Your task to perform on an android device: turn on wifi Image 0: 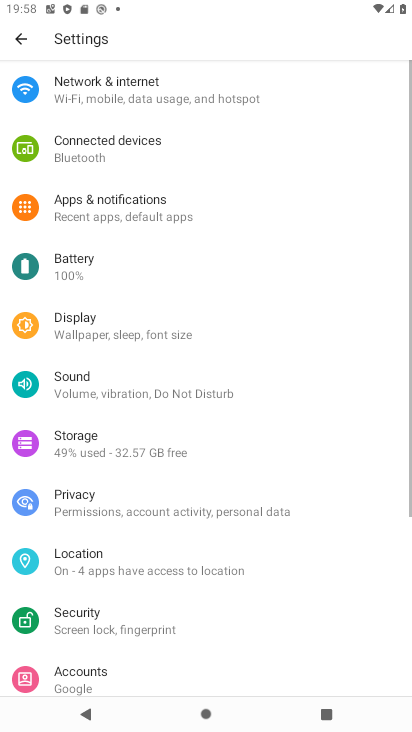
Step 0: press home button
Your task to perform on an android device: turn on wifi Image 1: 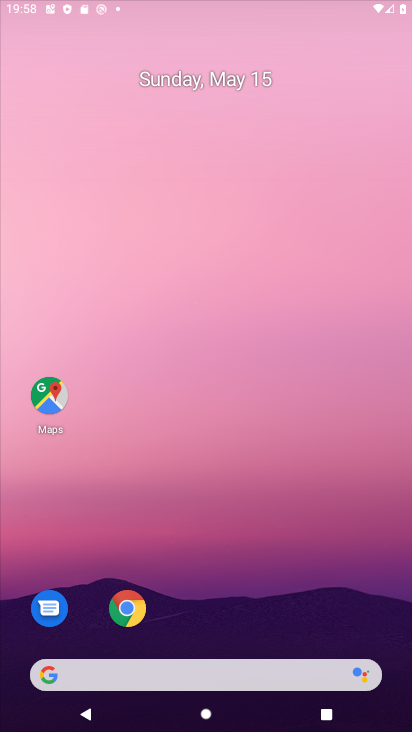
Step 1: drag from (200, 577) to (271, 64)
Your task to perform on an android device: turn on wifi Image 2: 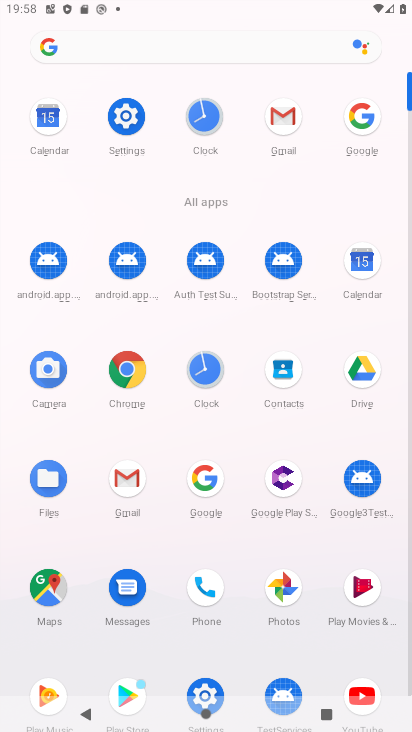
Step 2: click (125, 110)
Your task to perform on an android device: turn on wifi Image 3: 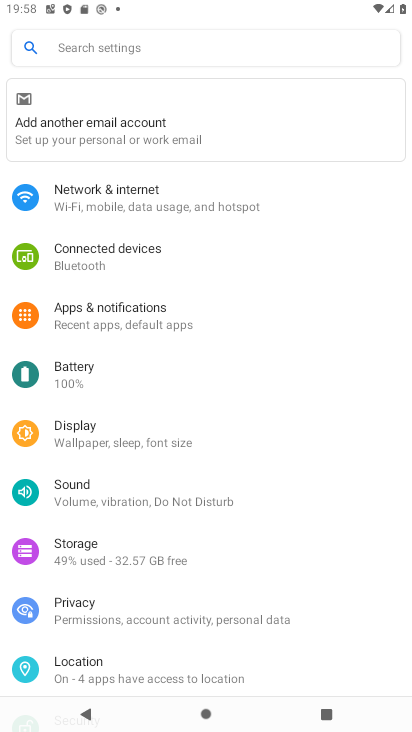
Step 3: click (169, 191)
Your task to perform on an android device: turn on wifi Image 4: 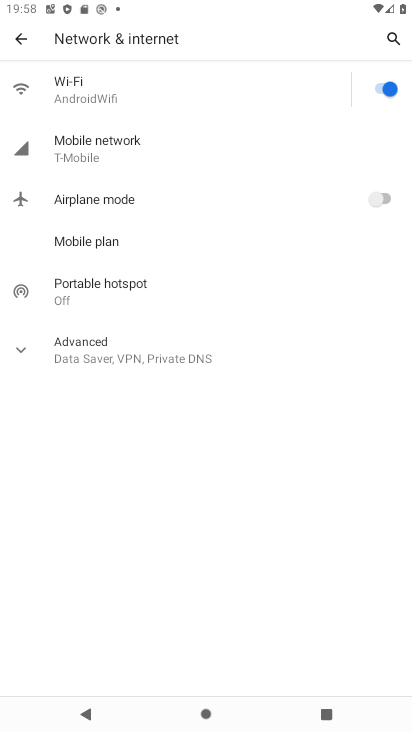
Step 4: task complete